Your task to perform on an android device: Open Maps and search for coffee Image 0: 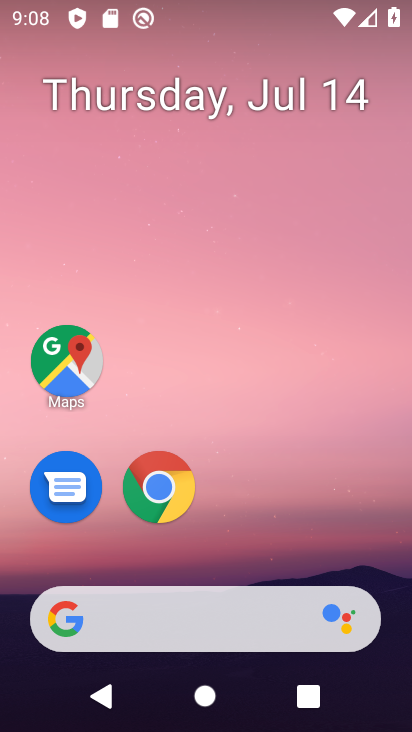
Step 0: click (76, 355)
Your task to perform on an android device: Open Maps and search for coffee Image 1: 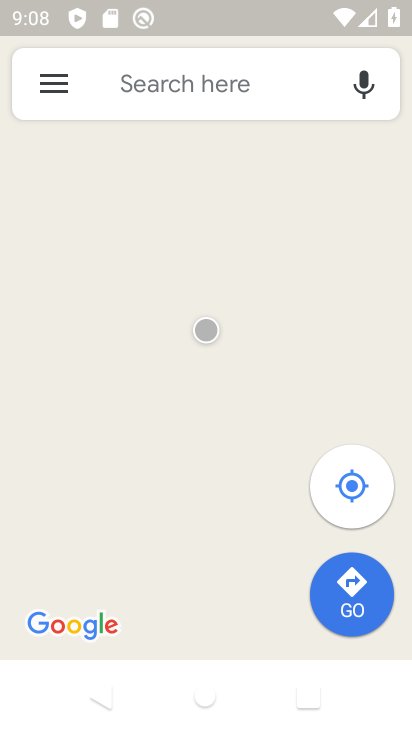
Step 1: click (207, 84)
Your task to perform on an android device: Open Maps and search for coffee Image 2: 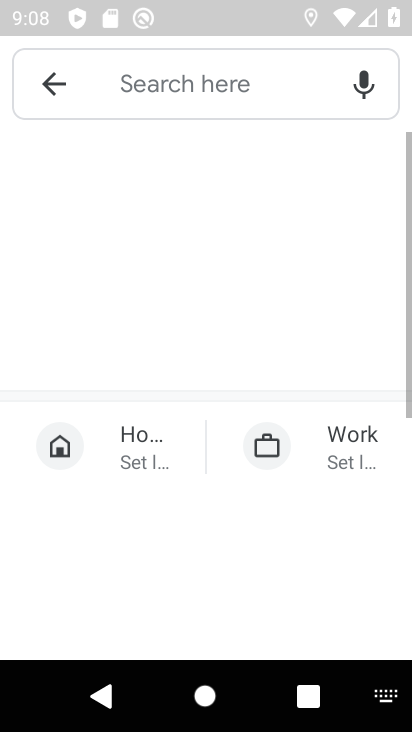
Step 2: click (185, 50)
Your task to perform on an android device: Open Maps and search for coffee Image 3: 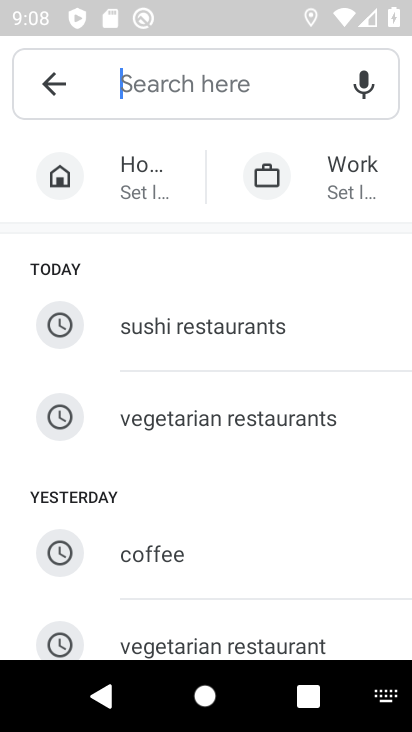
Step 3: type "coffee"
Your task to perform on an android device: Open Maps and search for coffee Image 4: 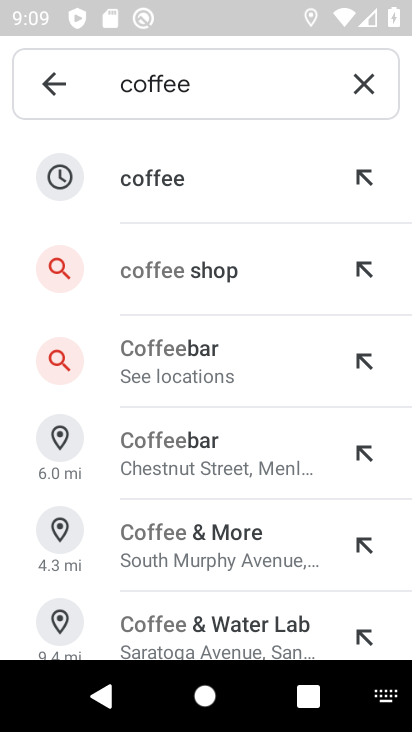
Step 4: click (220, 168)
Your task to perform on an android device: Open Maps and search for coffee Image 5: 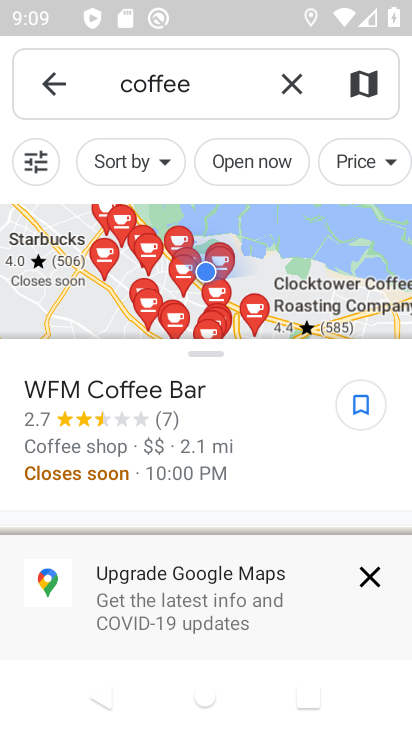
Step 5: task complete